Your task to perform on an android device: turn notification dots on Image 0: 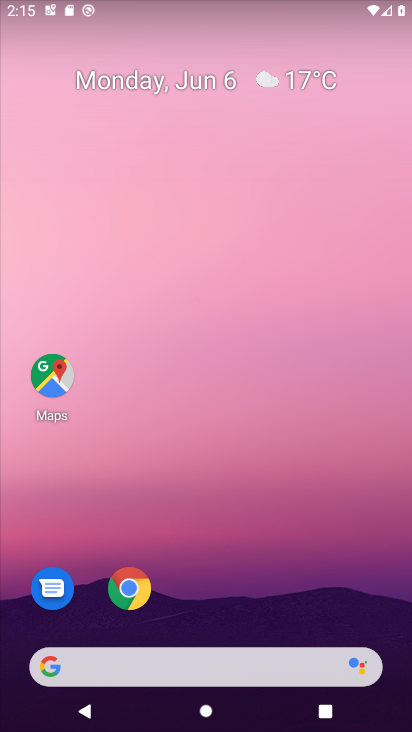
Step 0: drag from (281, 688) to (334, 111)
Your task to perform on an android device: turn notification dots on Image 1: 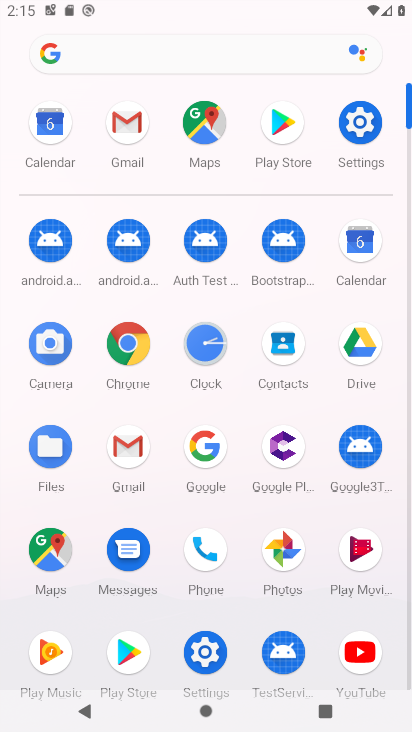
Step 1: click (369, 115)
Your task to perform on an android device: turn notification dots on Image 2: 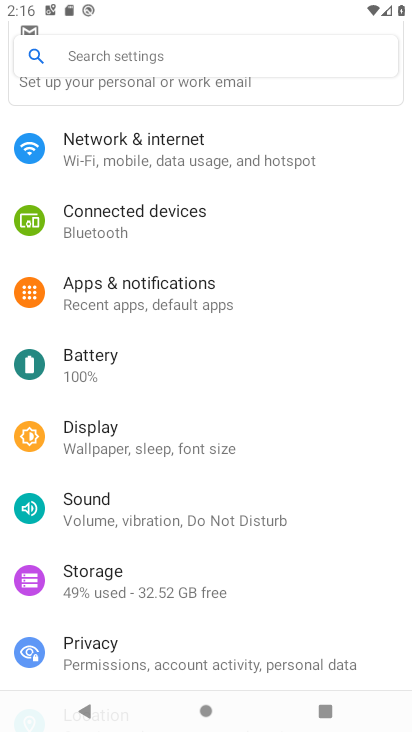
Step 2: click (176, 305)
Your task to perform on an android device: turn notification dots on Image 3: 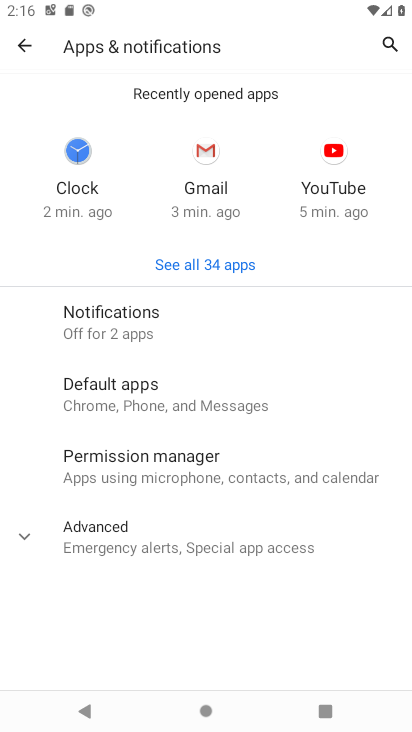
Step 3: click (192, 324)
Your task to perform on an android device: turn notification dots on Image 4: 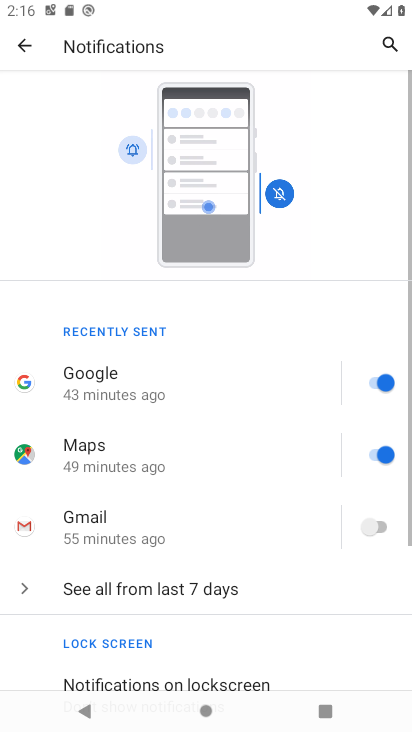
Step 4: drag from (270, 623) to (239, 3)
Your task to perform on an android device: turn notification dots on Image 5: 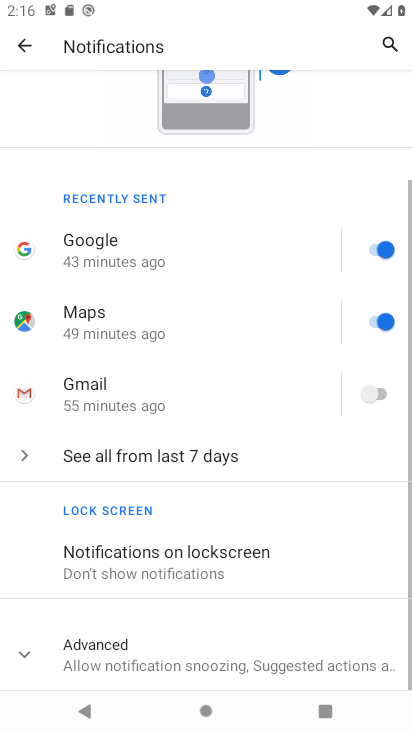
Step 5: click (260, 636)
Your task to perform on an android device: turn notification dots on Image 6: 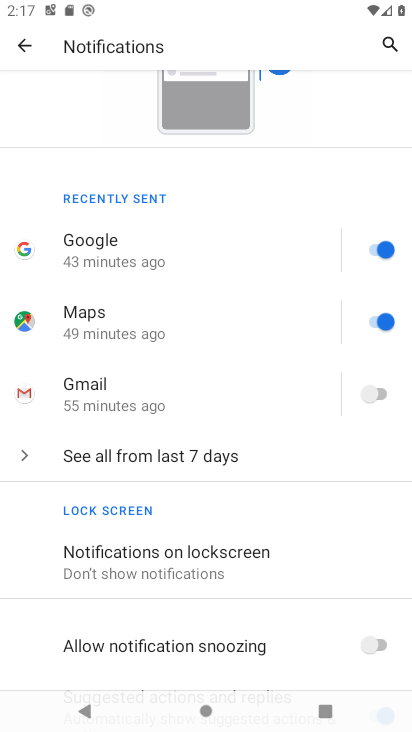
Step 6: task complete